Your task to perform on an android device: Open Youtube and go to "Your channel" Image 0: 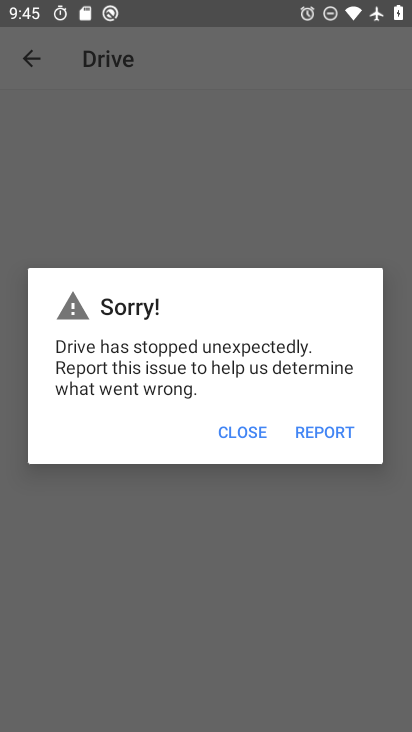
Step 0: press home button
Your task to perform on an android device: Open Youtube and go to "Your channel" Image 1: 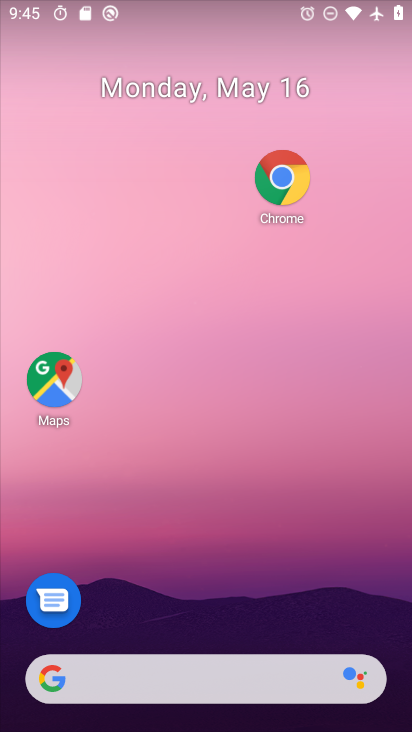
Step 1: drag from (157, 674) to (287, 120)
Your task to perform on an android device: Open Youtube and go to "Your channel" Image 2: 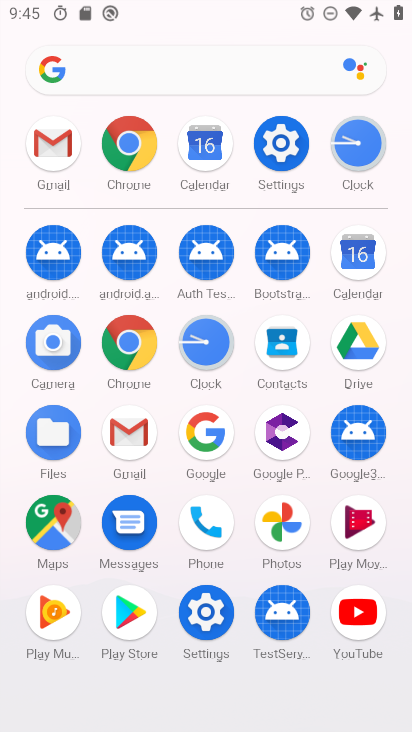
Step 2: click (354, 617)
Your task to perform on an android device: Open Youtube and go to "Your channel" Image 3: 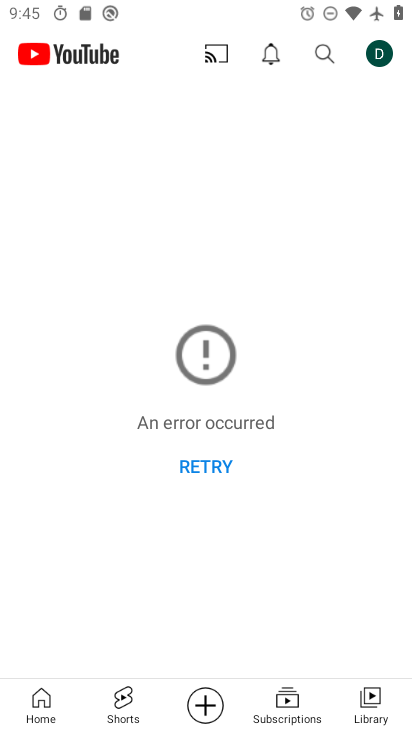
Step 3: click (213, 464)
Your task to perform on an android device: Open Youtube and go to "Your channel" Image 4: 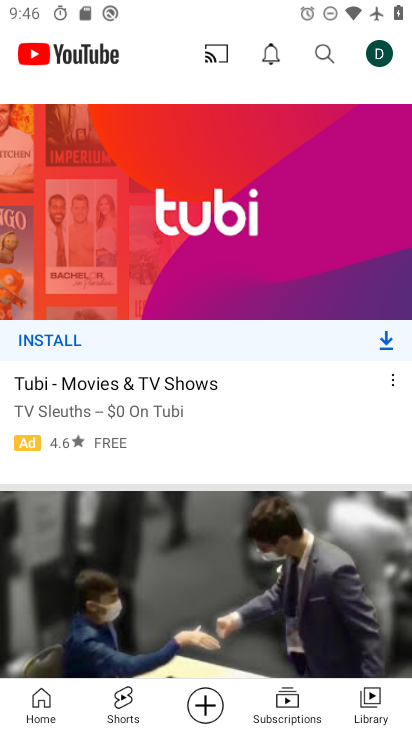
Step 4: click (383, 56)
Your task to perform on an android device: Open Youtube and go to "Your channel" Image 5: 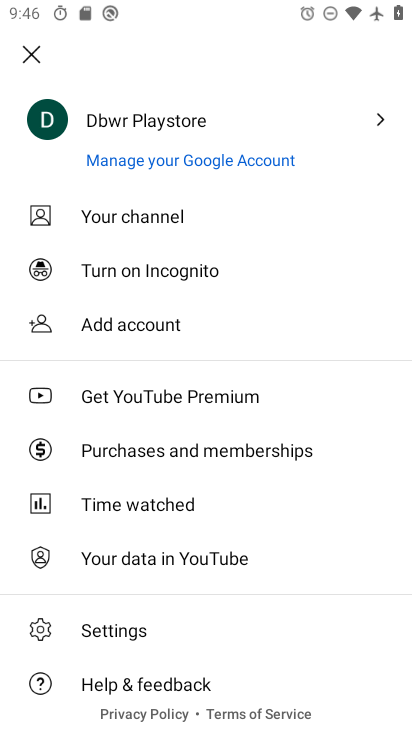
Step 5: click (132, 212)
Your task to perform on an android device: Open Youtube and go to "Your channel" Image 6: 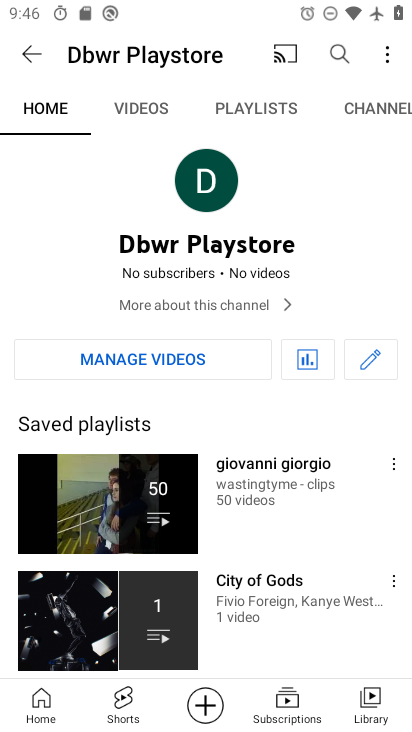
Step 6: task complete